Your task to perform on an android device: Turn on the flashlight Image 0: 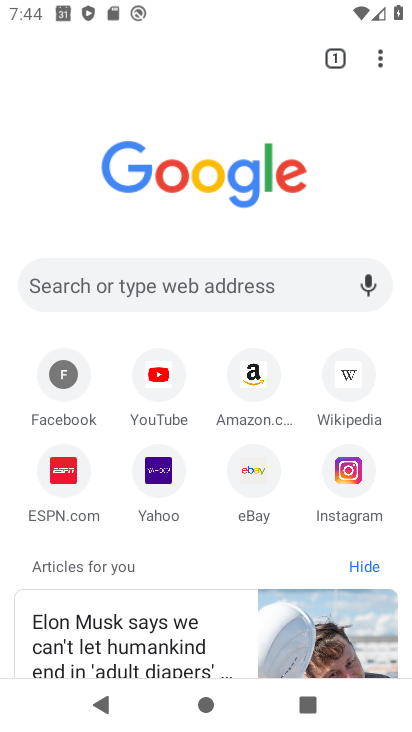
Step 0: press back button
Your task to perform on an android device: Turn on the flashlight Image 1: 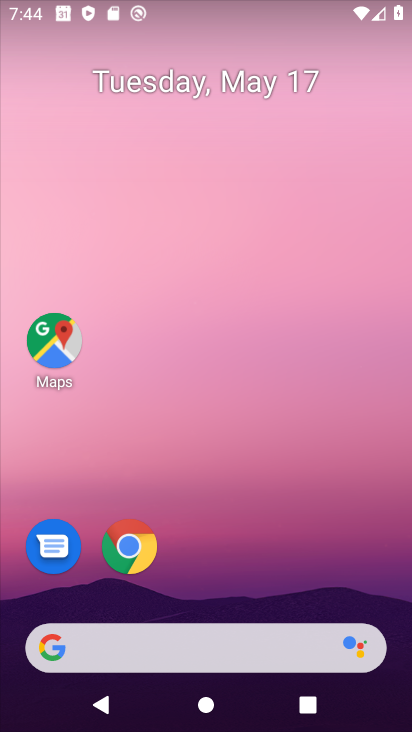
Step 1: drag from (218, 540) to (151, 141)
Your task to perform on an android device: Turn on the flashlight Image 2: 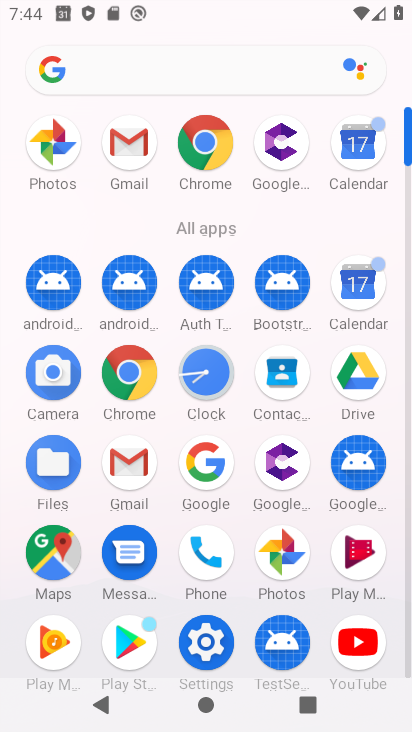
Step 2: click (208, 641)
Your task to perform on an android device: Turn on the flashlight Image 3: 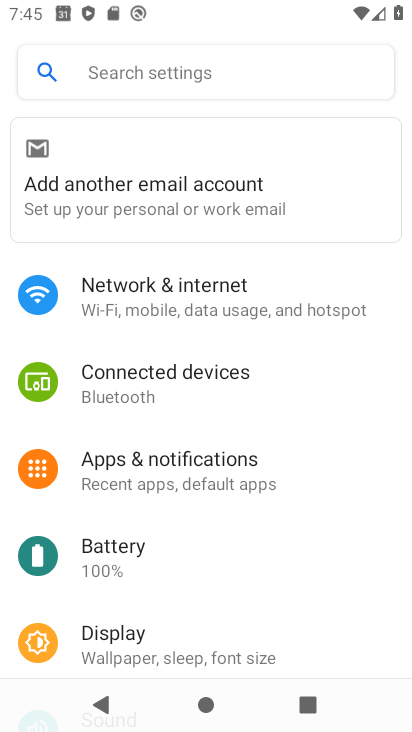
Step 3: drag from (191, 562) to (180, 428)
Your task to perform on an android device: Turn on the flashlight Image 4: 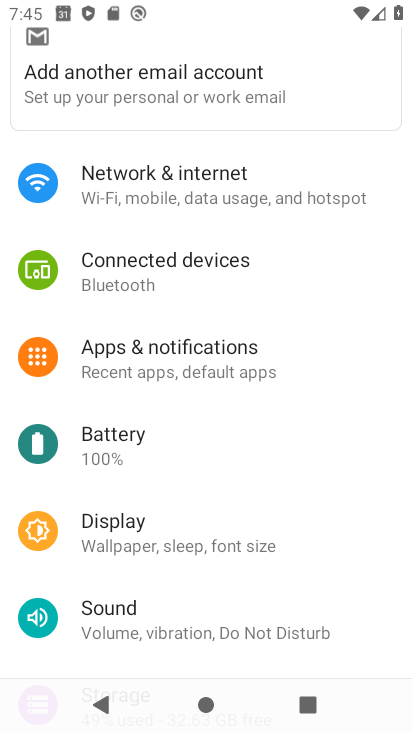
Step 4: click (171, 543)
Your task to perform on an android device: Turn on the flashlight Image 5: 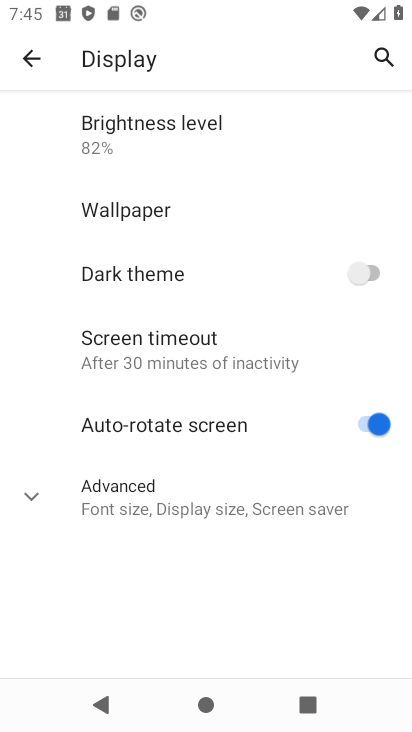
Step 5: click (182, 510)
Your task to perform on an android device: Turn on the flashlight Image 6: 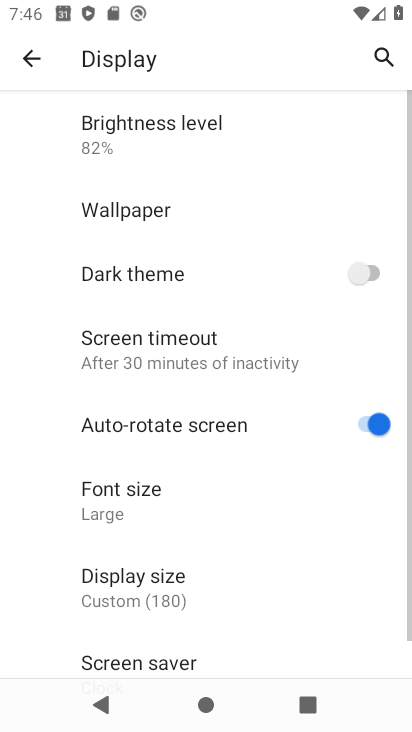
Step 6: drag from (213, 587) to (228, 483)
Your task to perform on an android device: Turn on the flashlight Image 7: 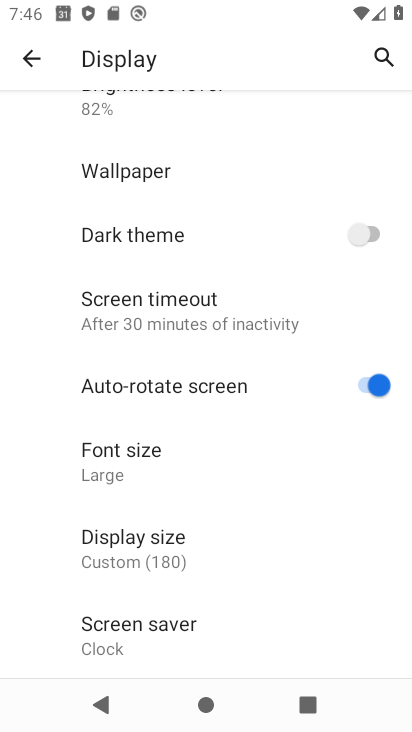
Step 7: press back button
Your task to perform on an android device: Turn on the flashlight Image 8: 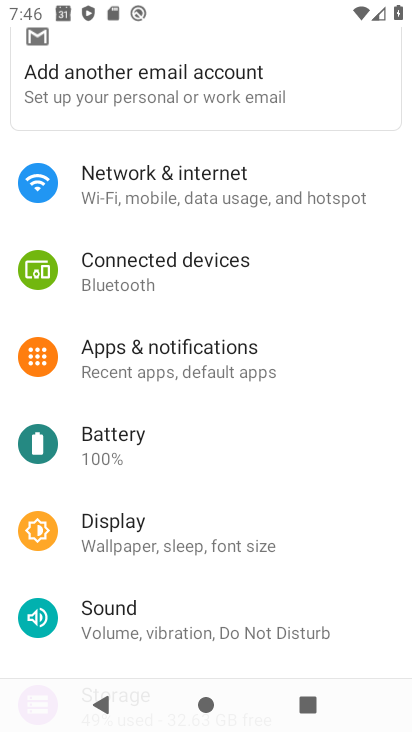
Step 8: drag from (168, 490) to (171, 256)
Your task to perform on an android device: Turn on the flashlight Image 9: 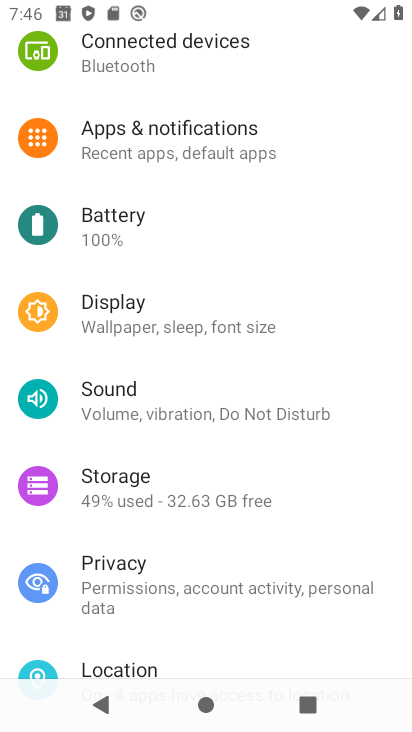
Step 9: drag from (156, 362) to (209, 263)
Your task to perform on an android device: Turn on the flashlight Image 10: 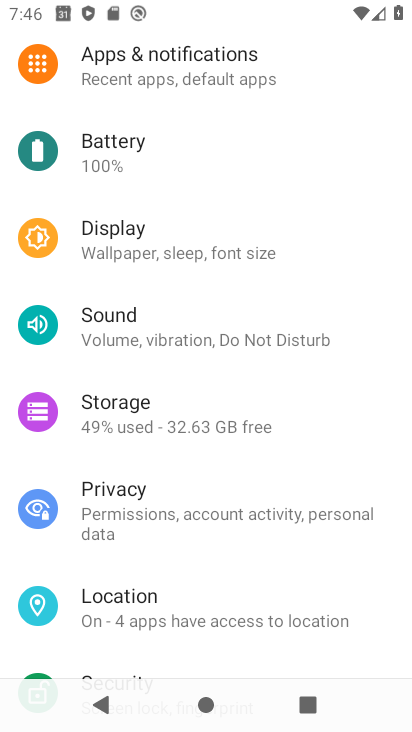
Step 10: drag from (191, 369) to (231, 251)
Your task to perform on an android device: Turn on the flashlight Image 11: 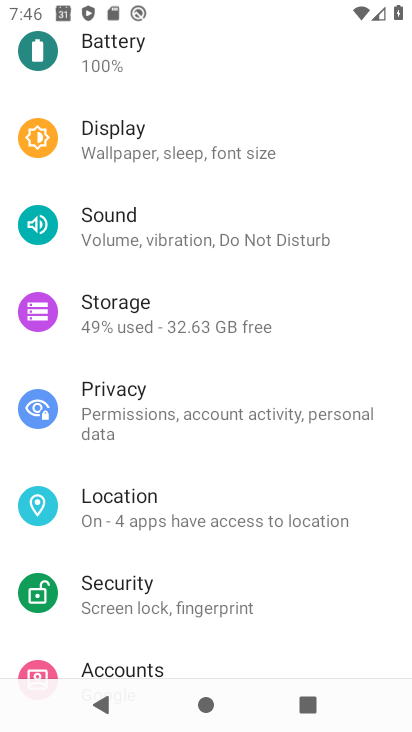
Step 11: drag from (203, 435) to (255, 330)
Your task to perform on an android device: Turn on the flashlight Image 12: 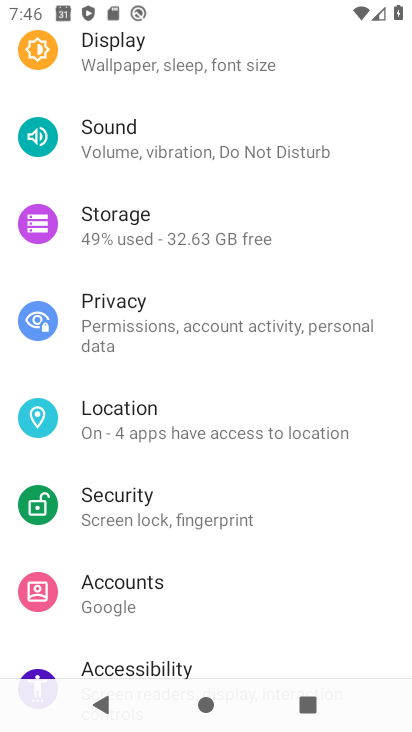
Step 12: drag from (253, 464) to (332, 374)
Your task to perform on an android device: Turn on the flashlight Image 13: 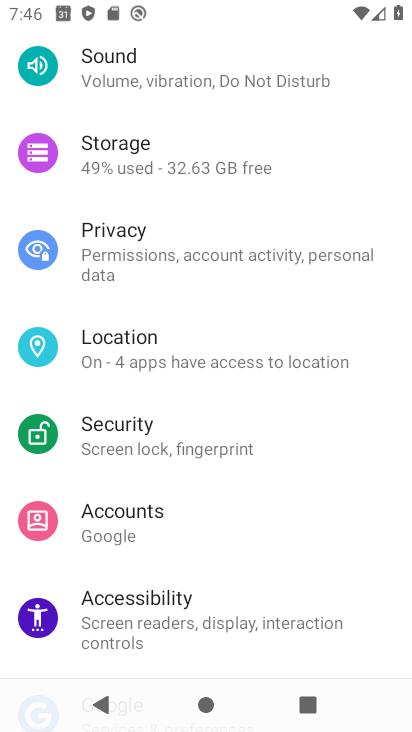
Step 13: drag from (166, 559) to (232, 424)
Your task to perform on an android device: Turn on the flashlight Image 14: 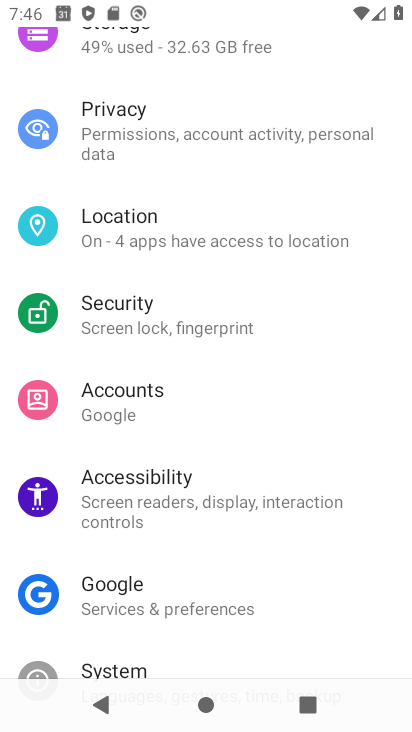
Step 14: click (164, 502)
Your task to perform on an android device: Turn on the flashlight Image 15: 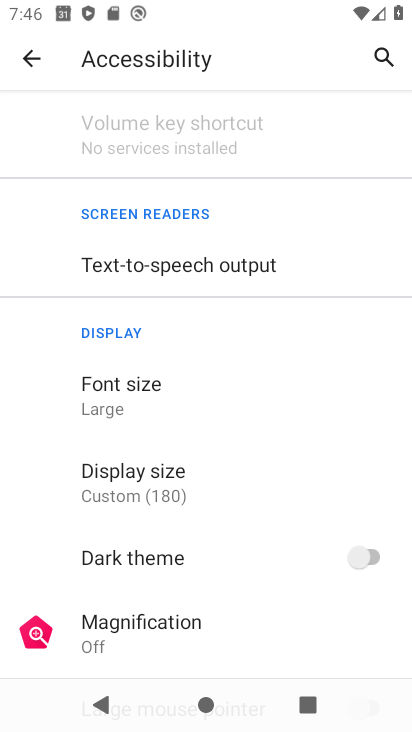
Step 15: task complete